Your task to perform on an android device: Go to Reddit.com Image 0: 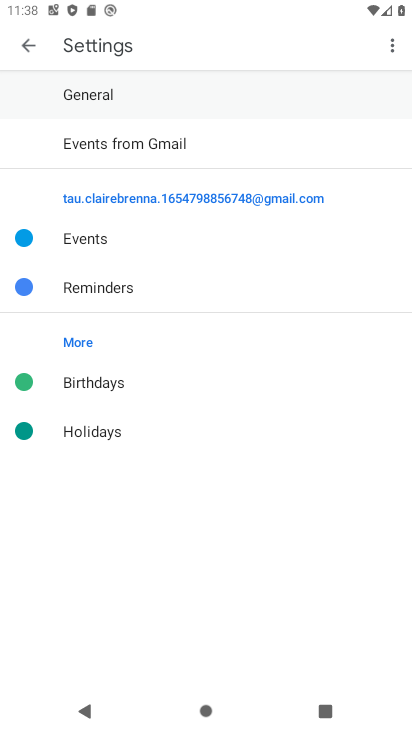
Step 0: press home button
Your task to perform on an android device: Go to Reddit.com Image 1: 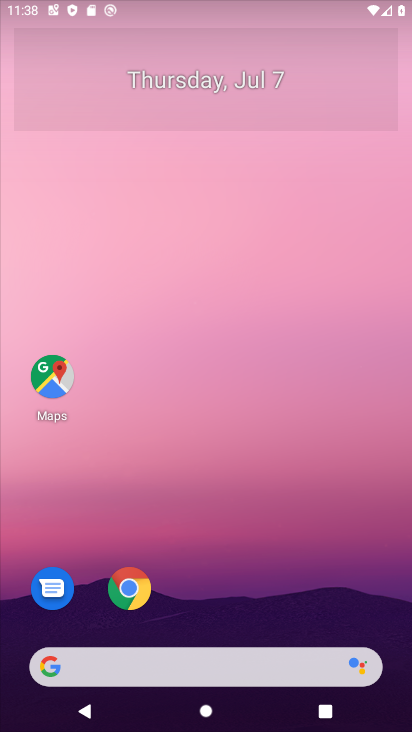
Step 1: drag from (216, 600) to (286, 75)
Your task to perform on an android device: Go to Reddit.com Image 2: 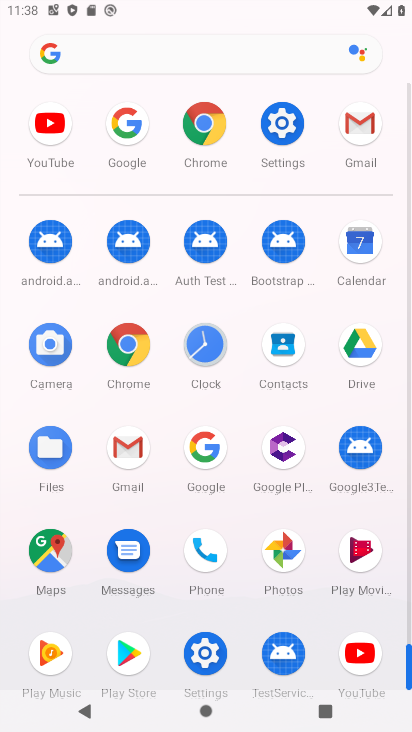
Step 2: click (206, 445)
Your task to perform on an android device: Go to Reddit.com Image 3: 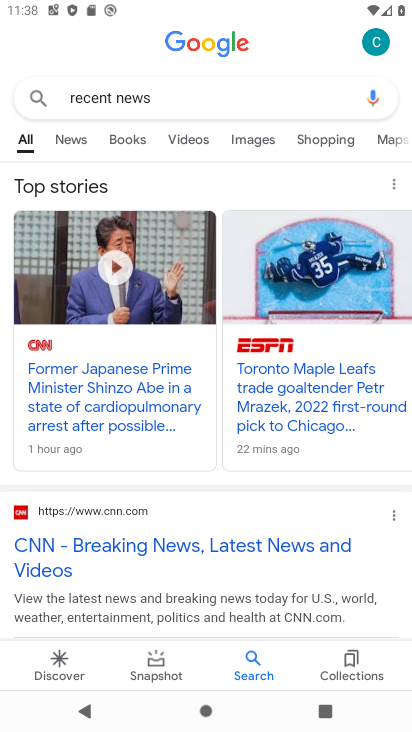
Step 3: click (191, 99)
Your task to perform on an android device: Go to Reddit.com Image 4: 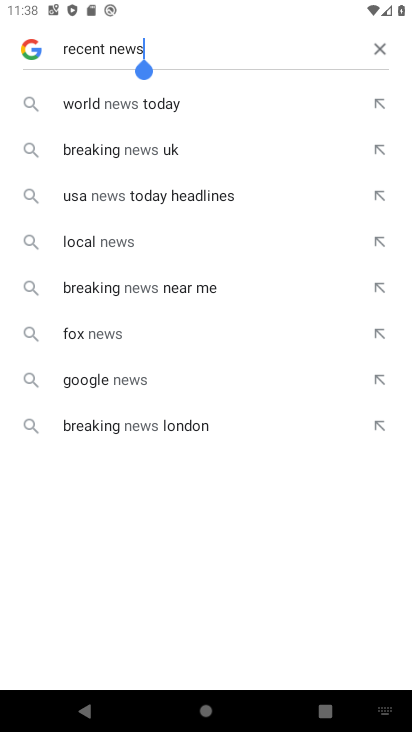
Step 4: click (381, 43)
Your task to perform on an android device: Go to Reddit.com Image 5: 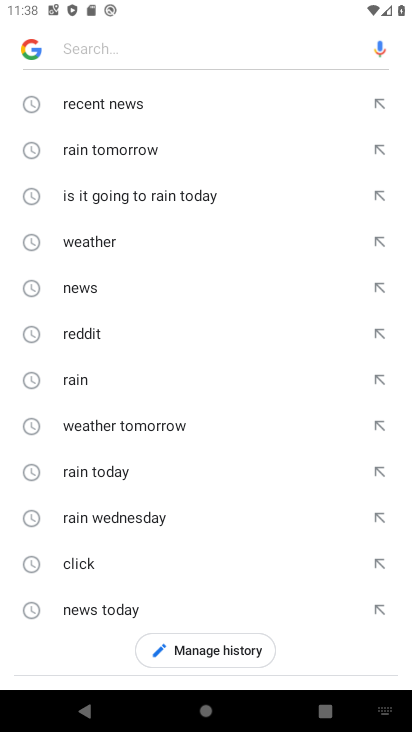
Step 5: type "reddit.com"
Your task to perform on an android device: Go to Reddit.com Image 6: 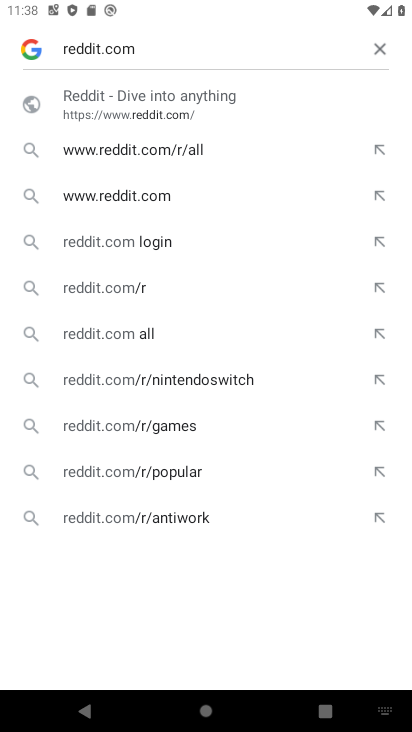
Step 6: click (176, 105)
Your task to perform on an android device: Go to Reddit.com Image 7: 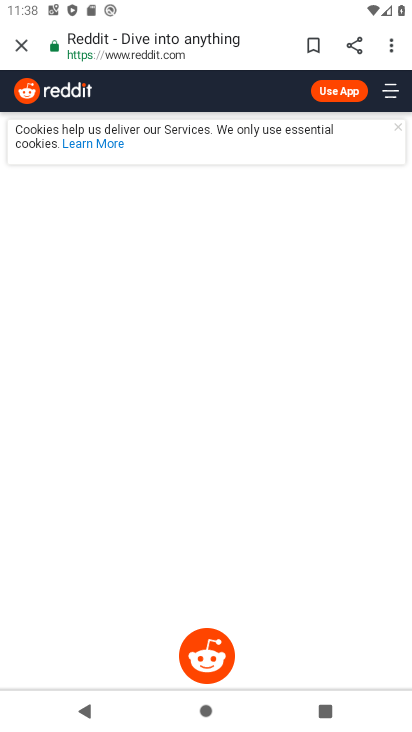
Step 7: task complete